Your task to perform on an android device: turn off wifi Image 0: 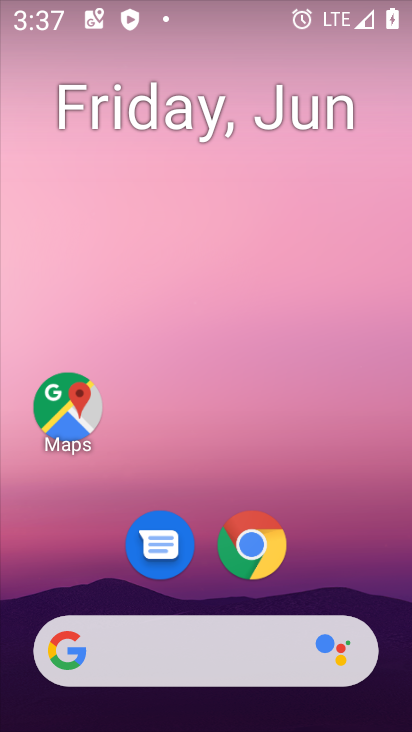
Step 0: drag from (327, 571) to (359, 0)
Your task to perform on an android device: turn off wifi Image 1: 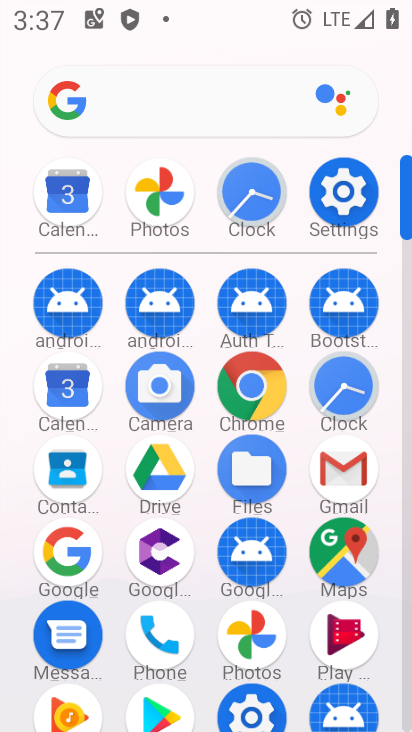
Step 1: click (338, 189)
Your task to perform on an android device: turn off wifi Image 2: 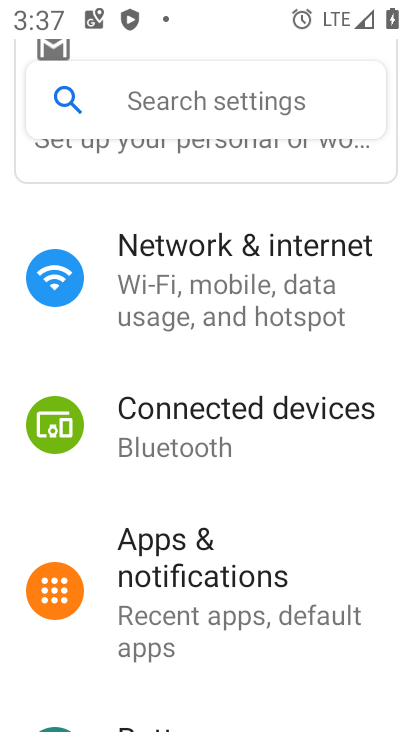
Step 2: click (245, 318)
Your task to perform on an android device: turn off wifi Image 3: 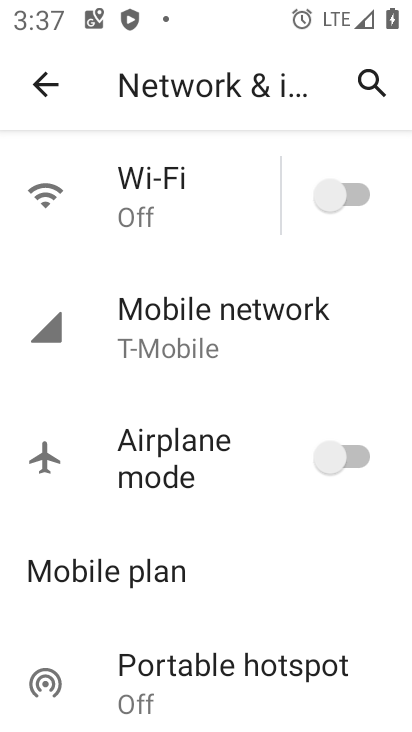
Step 3: task complete